Your task to perform on an android device: turn off notifications settings in the gmail app Image 0: 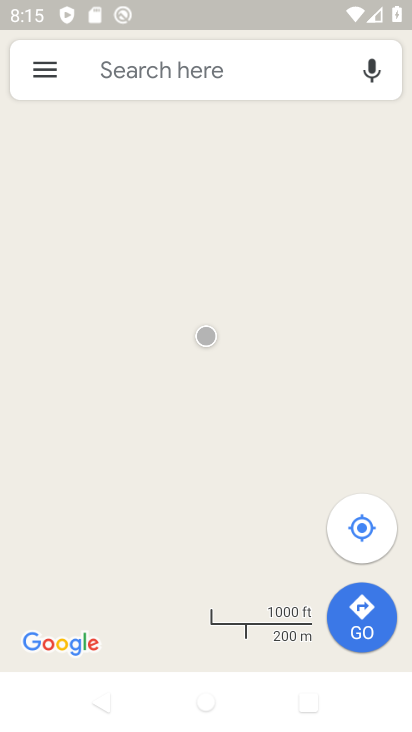
Step 0: press home button
Your task to perform on an android device: turn off notifications settings in the gmail app Image 1: 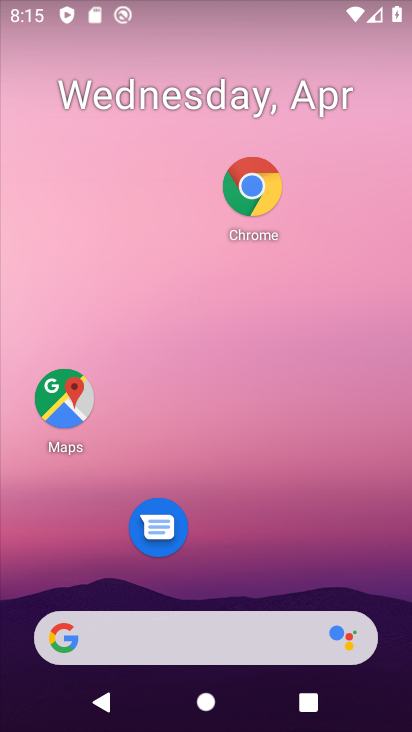
Step 1: drag from (185, 622) to (282, 148)
Your task to perform on an android device: turn off notifications settings in the gmail app Image 2: 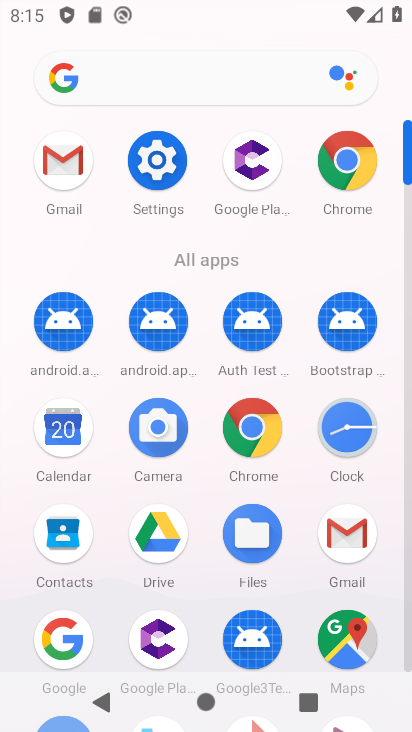
Step 2: click (61, 159)
Your task to perform on an android device: turn off notifications settings in the gmail app Image 3: 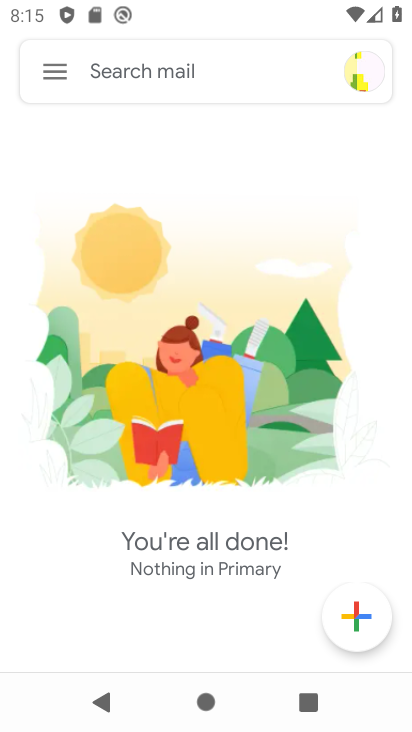
Step 3: click (52, 72)
Your task to perform on an android device: turn off notifications settings in the gmail app Image 4: 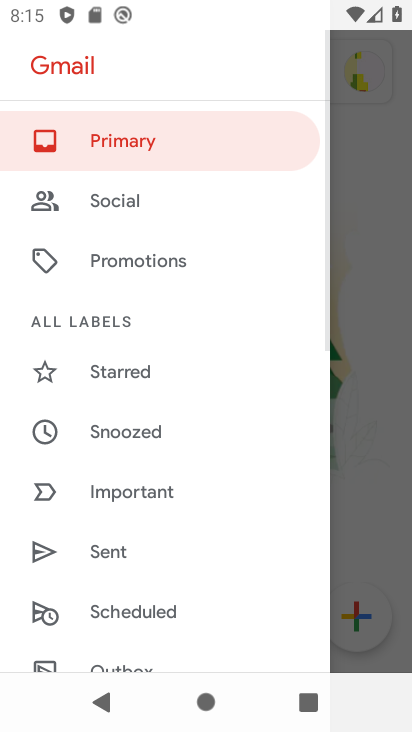
Step 4: drag from (212, 617) to (197, 159)
Your task to perform on an android device: turn off notifications settings in the gmail app Image 5: 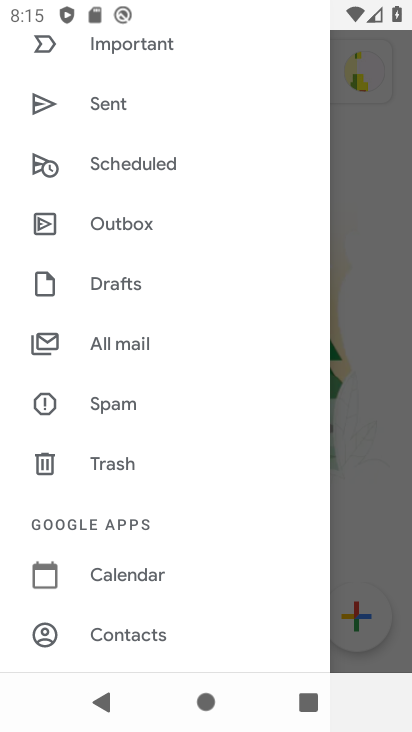
Step 5: drag from (133, 557) to (178, 176)
Your task to perform on an android device: turn off notifications settings in the gmail app Image 6: 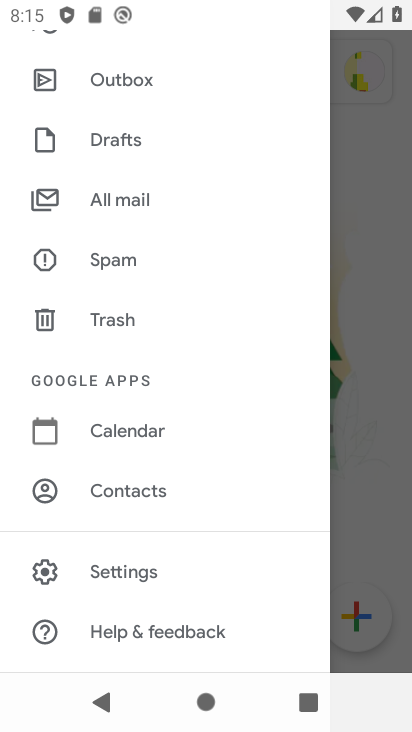
Step 6: click (130, 585)
Your task to perform on an android device: turn off notifications settings in the gmail app Image 7: 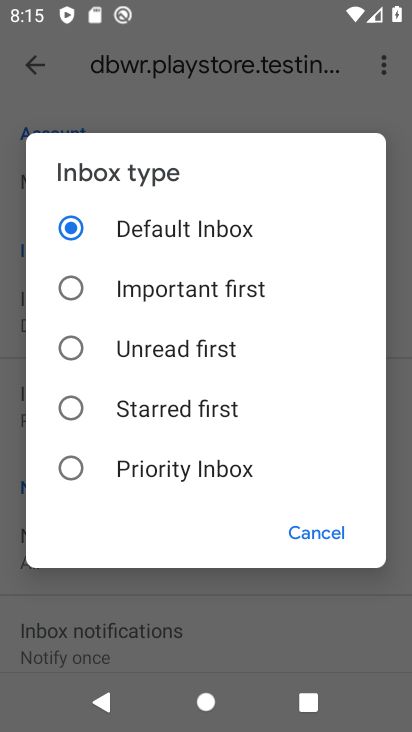
Step 7: click (315, 531)
Your task to perform on an android device: turn off notifications settings in the gmail app Image 8: 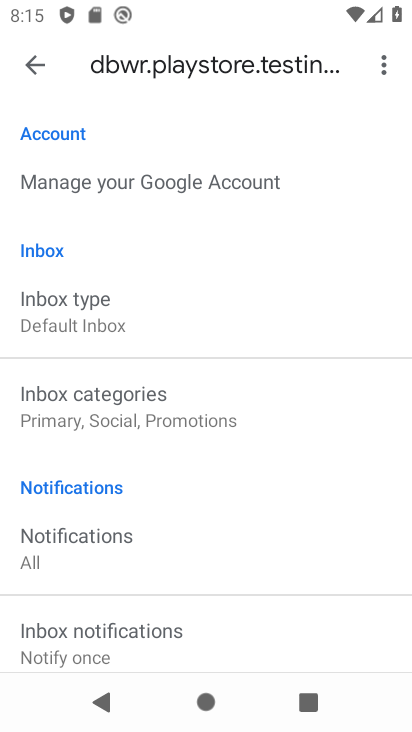
Step 8: click (83, 552)
Your task to perform on an android device: turn off notifications settings in the gmail app Image 9: 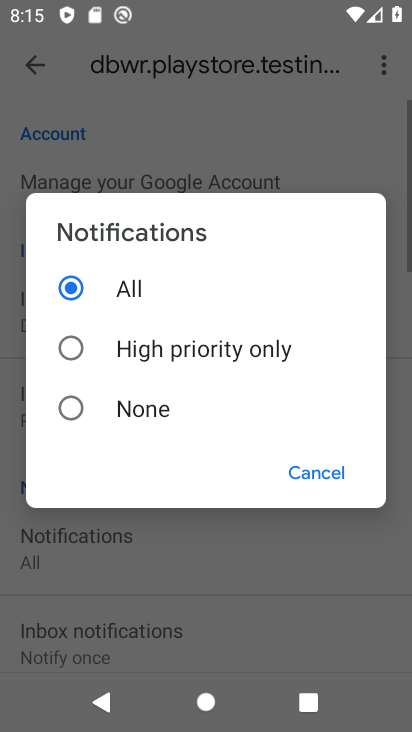
Step 9: click (130, 410)
Your task to perform on an android device: turn off notifications settings in the gmail app Image 10: 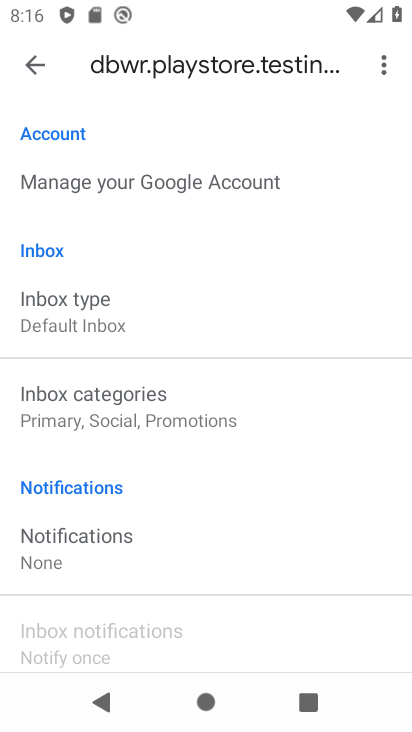
Step 10: task complete